Your task to perform on an android device: When is my next meeting? Image 0: 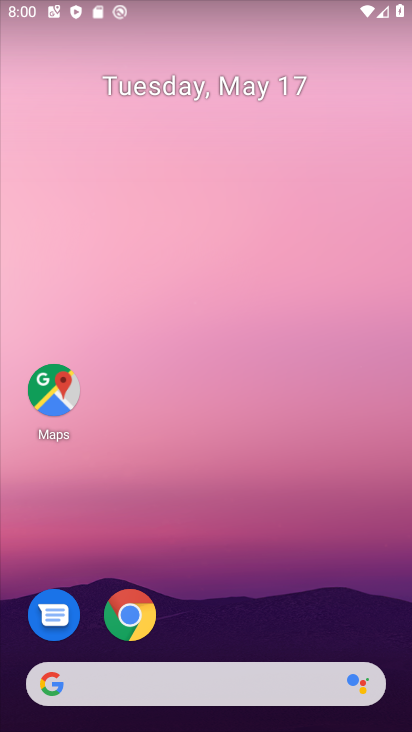
Step 0: drag from (239, 595) to (261, 259)
Your task to perform on an android device: When is my next meeting? Image 1: 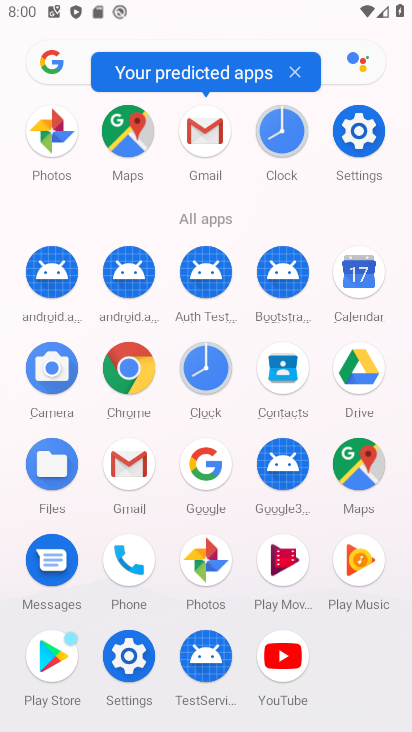
Step 1: click (354, 266)
Your task to perform on an android device: When is my next meeting? Image 2: 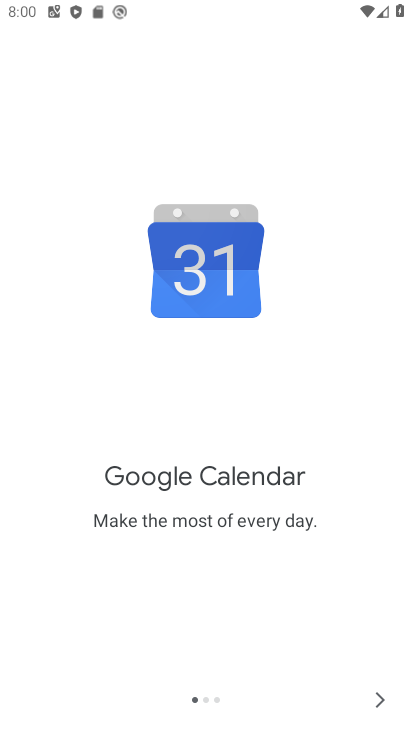
Step 2: click (373, 696)
Your task to perform on an android device: When is my next meeting? Image 3: 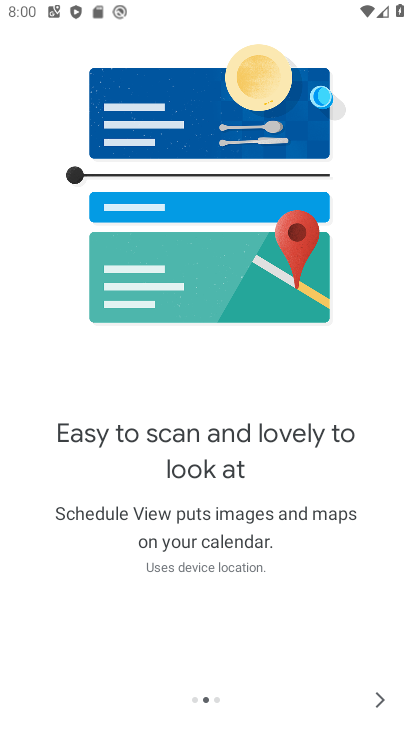
Step 3: click (374, 697)
Your task to perform on an android device: When is my next meeting? Image 4: 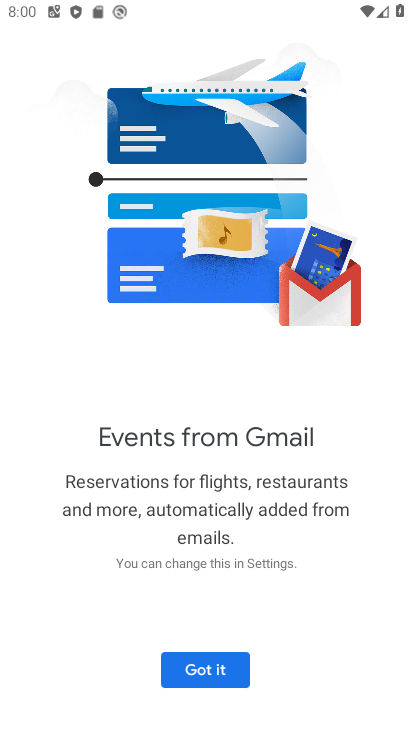
Step 4: click (229, 673)
Your task to perform on an android device: When is my next meeting? Image 5: 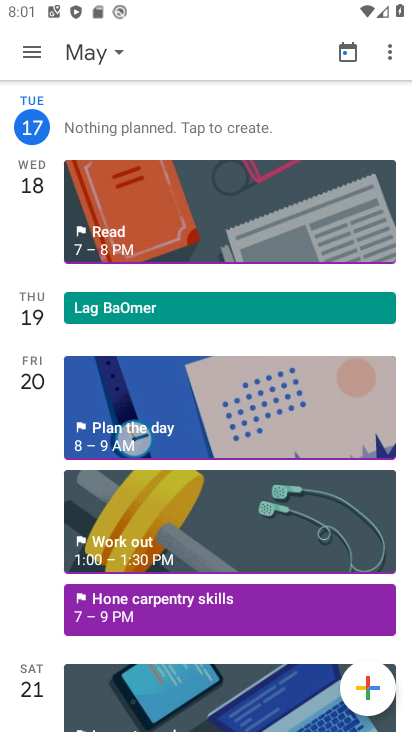
Step 5: task complete